Your task to perform on an android device: toggle notifications settings in the gmail app Image 0: 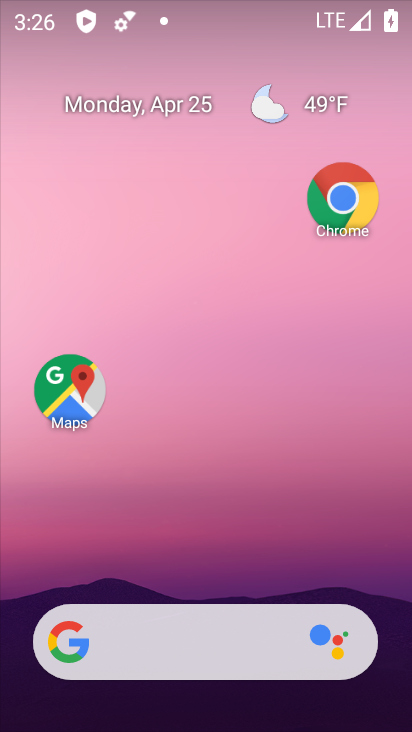
Step 0: drag from (165, 651) to (338, 147)
Your task to perform on an android device: toggle notifications settings in the gmail app Image 1: 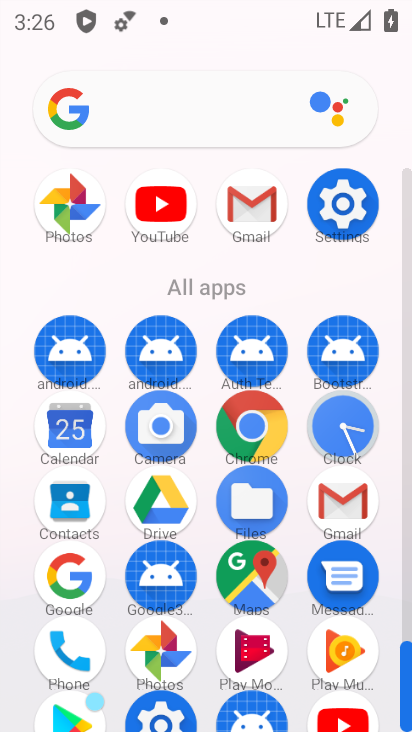
Step 1: click (257, 202)
Your task to perform on an android device: toggle notifications settings in the gmail app Image 2: 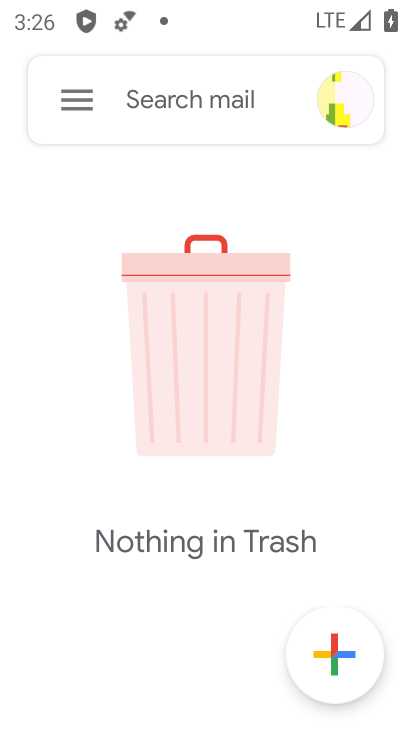
Step 2: click (82, 91)
Your task to perform on an android device: toggle notifications settings in the gmail app Image 3: 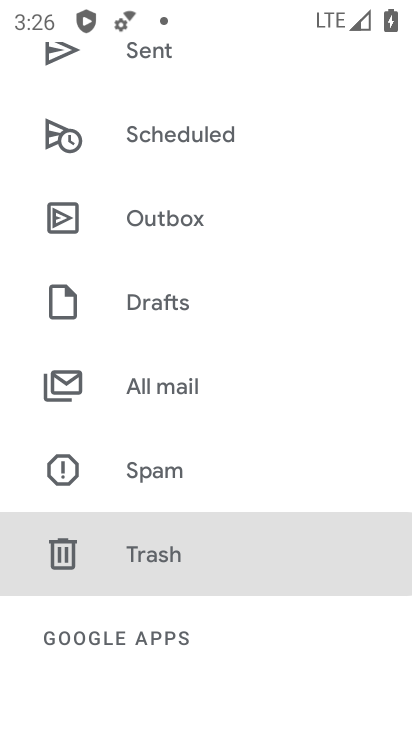
Step 3: drag from (173, 604) to (344, 228)
Your task to perform on an android device: toggle notifications settings in the gmail app Image 4: 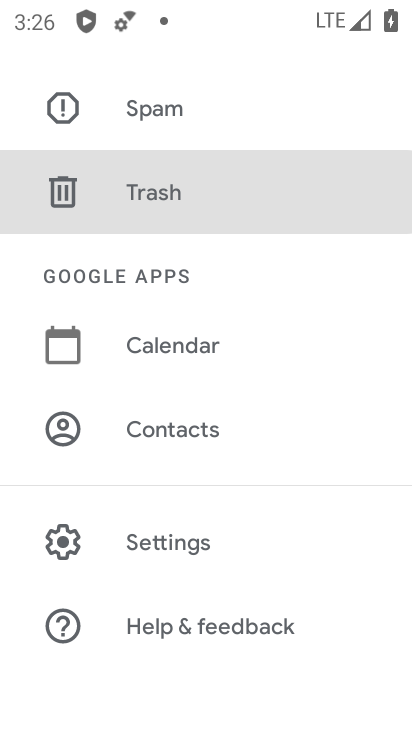
Step 4: click (177, 550)
Your task to perform on an android device: toggle notifications settings in the gmail app Image 5: 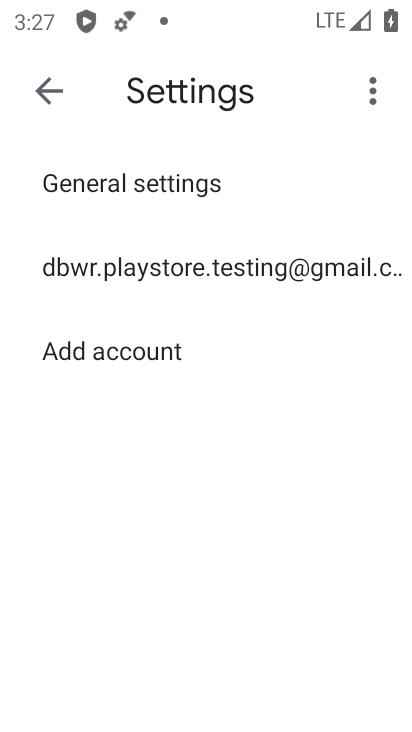
Step 5: click (244, 257)
Your task to perform on an android device: toggle notifications settings in the gmail app Image 6: 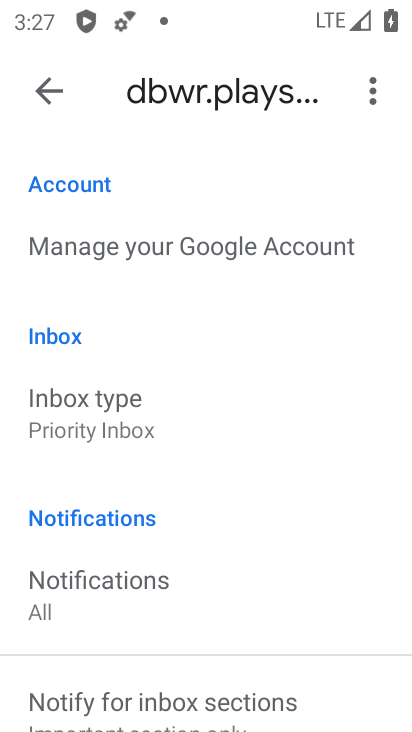
Step 6: click (77, 572)
Your task to perform on an android device: toggle notifications settings in the gmail app Image 7: 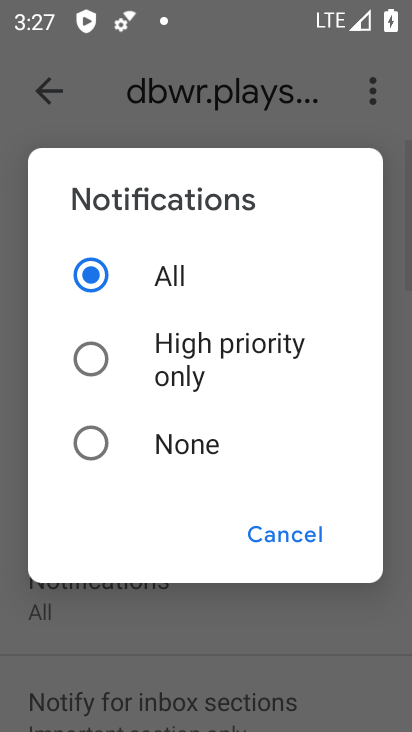
Step 7: click (91, 451)
Your task to perform on an android device: toggle notifications settings in the gmail app Image 8: 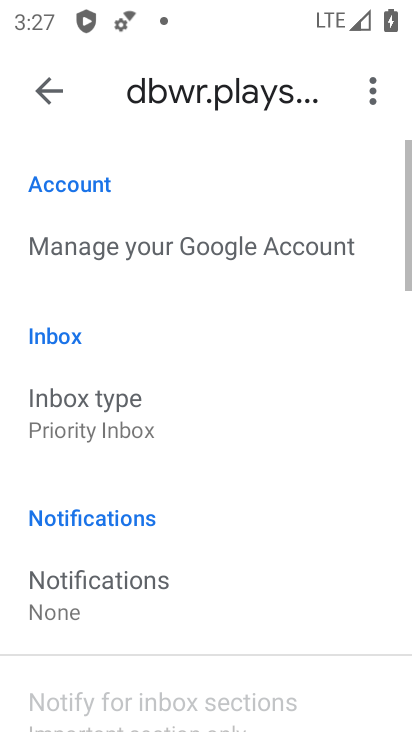
Step 8: task complete